Your task to perform on an android device: toggle location history Image 0: 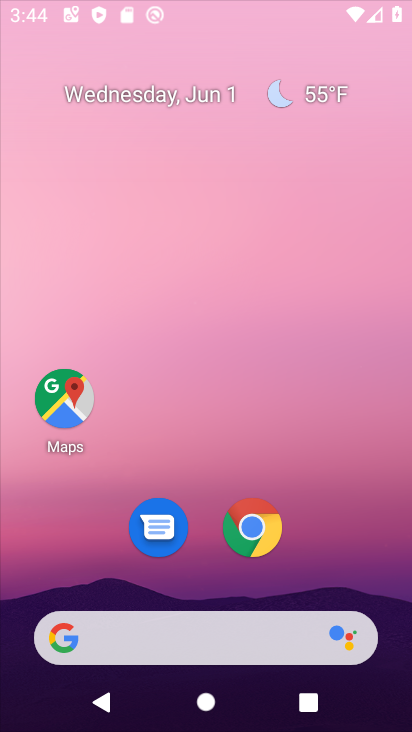
Step 0: press home button
Your task to perform on an android device: toggle location history Image 1: 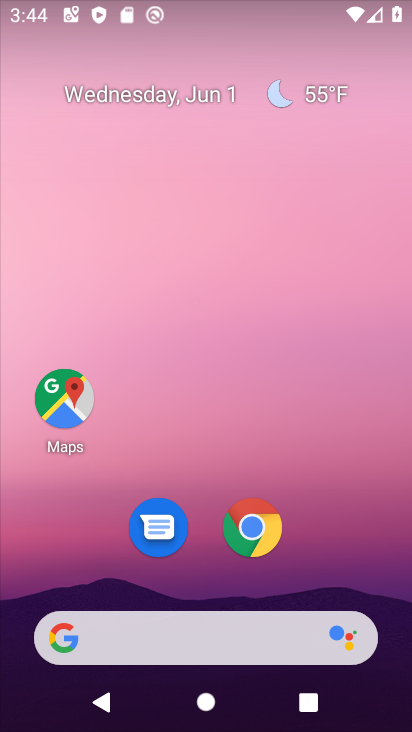
Step 1: click (338, 559)
Your task to perform on an android device: toggle location history Image 2: 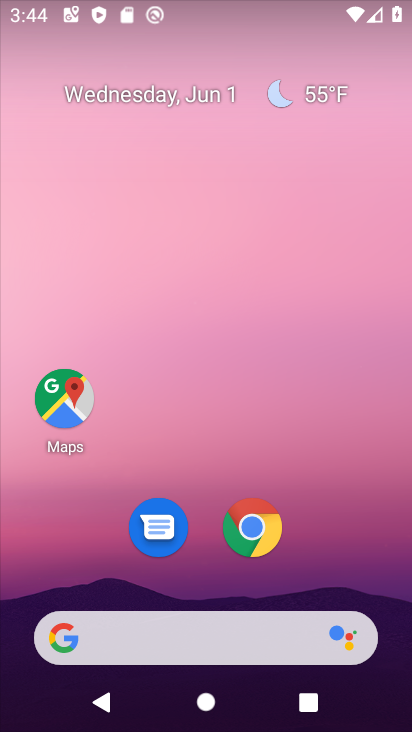
Step 2: click (57, 403)
Your task to perform on an android device: toggle location history Image 3: 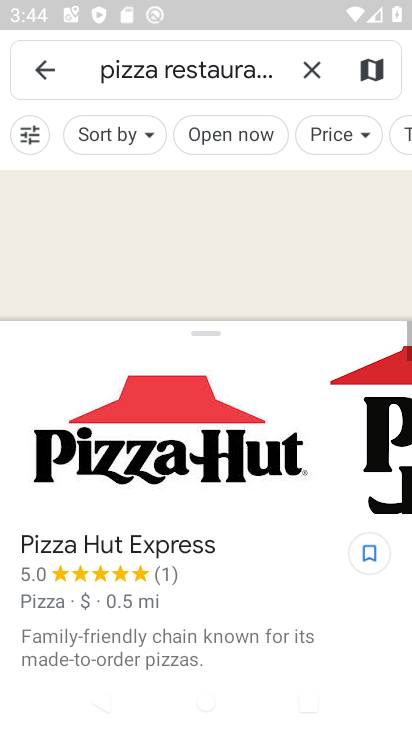
Step 3: click (54, 80)
Your task to perform on an android device: toggle location history Image 4: 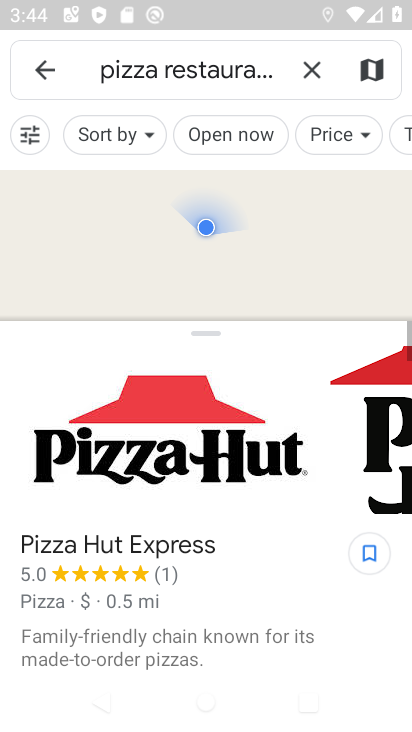
Step 4: click (54, 80)
Your task to perform on an android device: toggle location history Image 5: 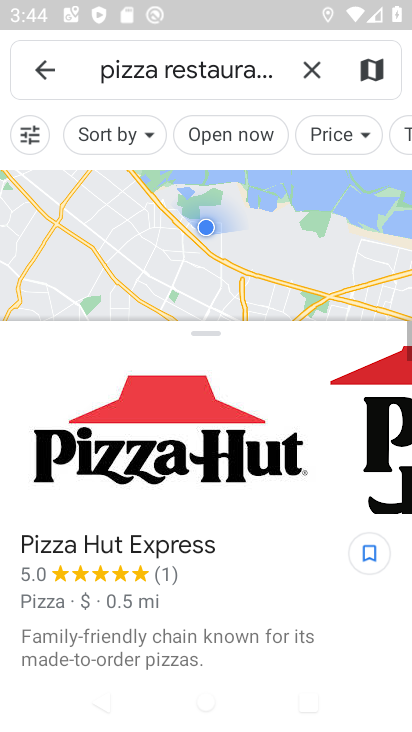
Step 5: click (45, 67)
Your task to perform on an android device: toggle location history Image 6: 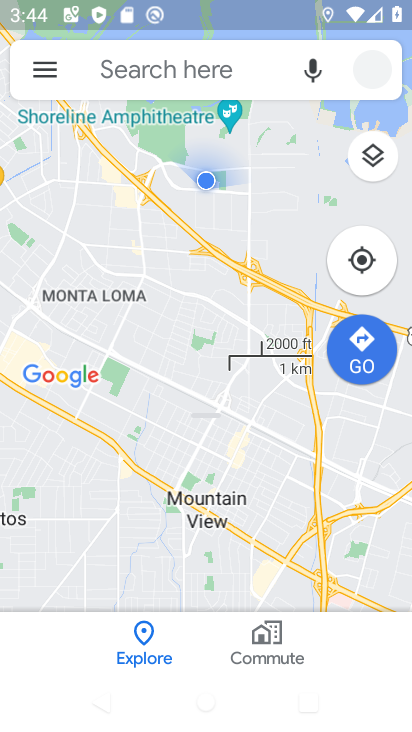
Step 6: click (45, 67)
Your task to perform on an android device: toggle location history Image 7: 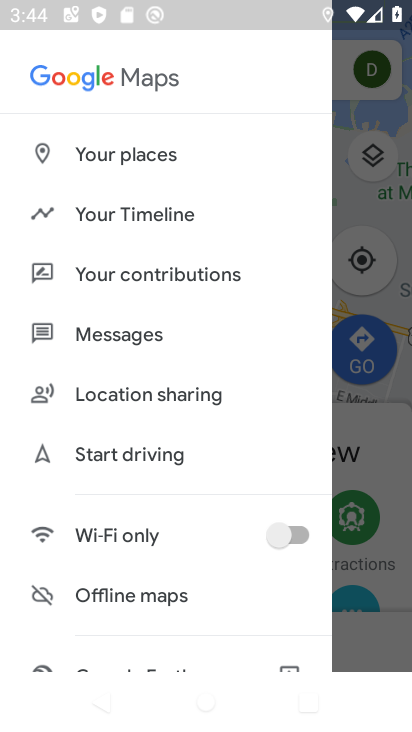
Step 7: click (135, 216)
Your task to perform on an android device: toggle location history Image 8: 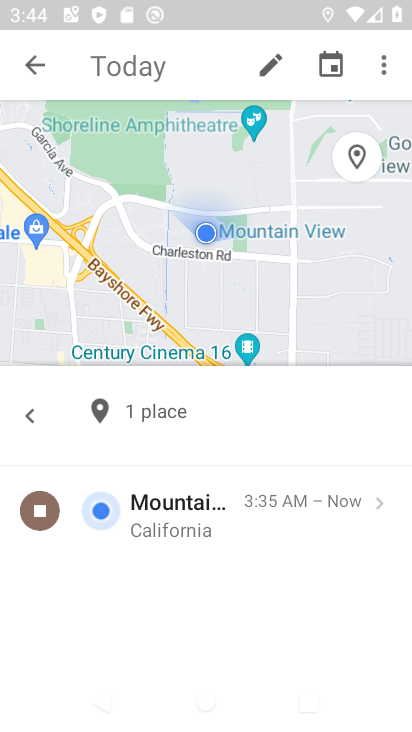
Step 8: click (375, 66)
Your task to perform on an android device: toggle location history Image 9: 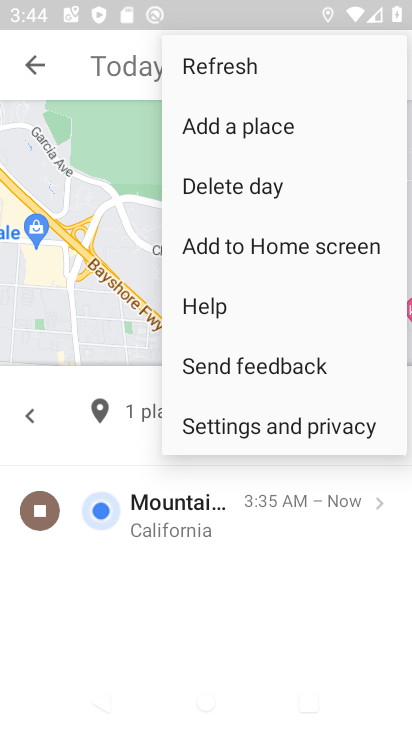
Step 9: click (264, 423)
Your task to perform on an android device: toggle location history Image 10: 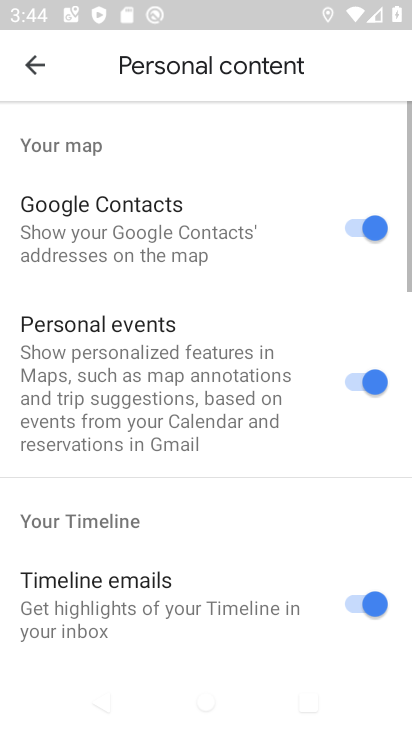
Step 10: drag from (262, 597) to (150, 219)
Your task to perform on an android device: toggle location history Image 11: 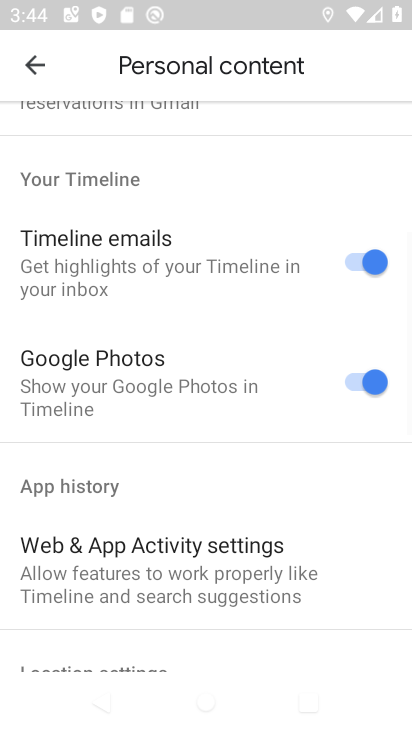
Step 11: drag from (227, 611) to (157, 329)
Your task to perform on an android device: toggle location history Image 12: 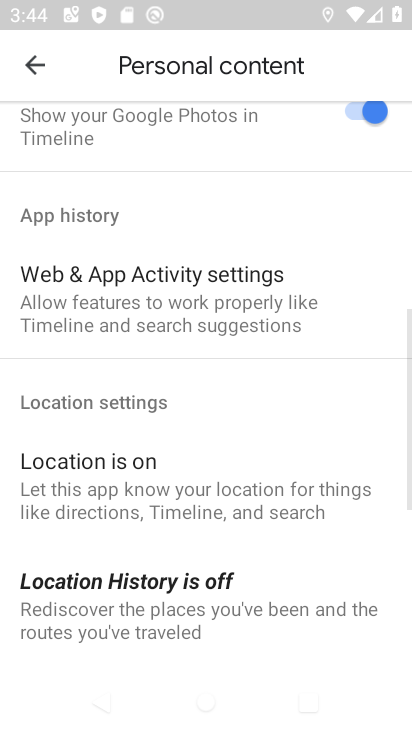
Step 12: drag from (272, 553) to (206, 356)
Your task to perform on an android device: toggle location history Image 13: 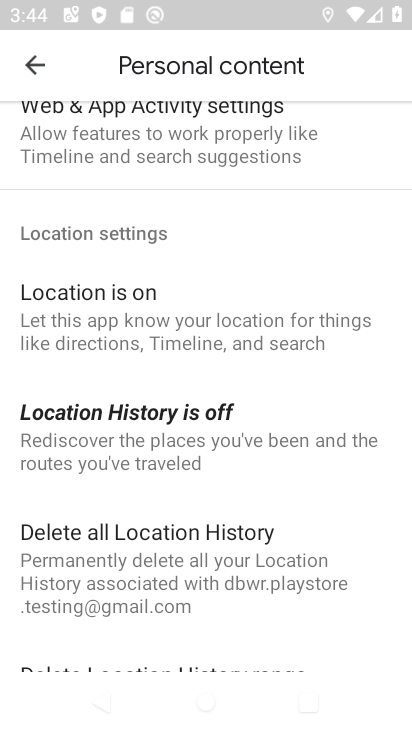
Step 13: click (109, 429)
Your task to perform on an android device: toggle location history Image 14: 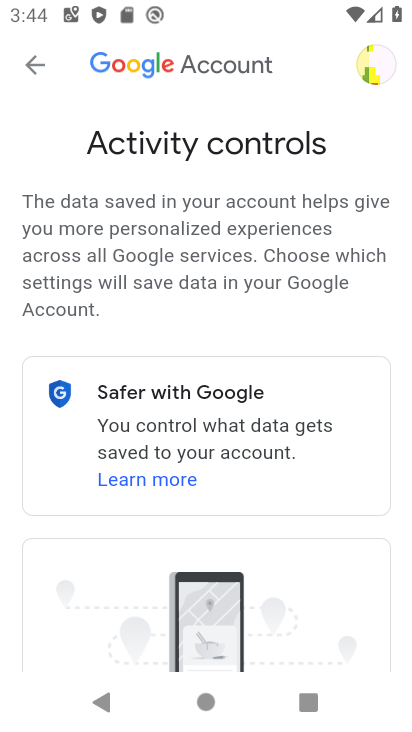
Step 14: drag from (260, 588) to (148, 7)
Your task to perform on an android device: toggle location history Image 15: 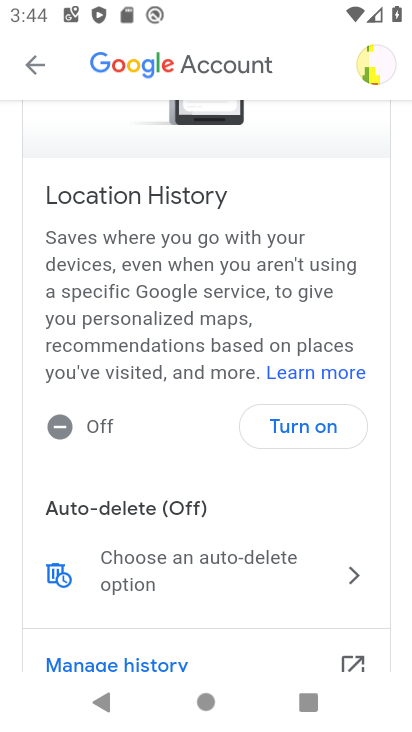
Step 15: click (295, 441)
Your task to perform on an android device: toggle location history Image 16: 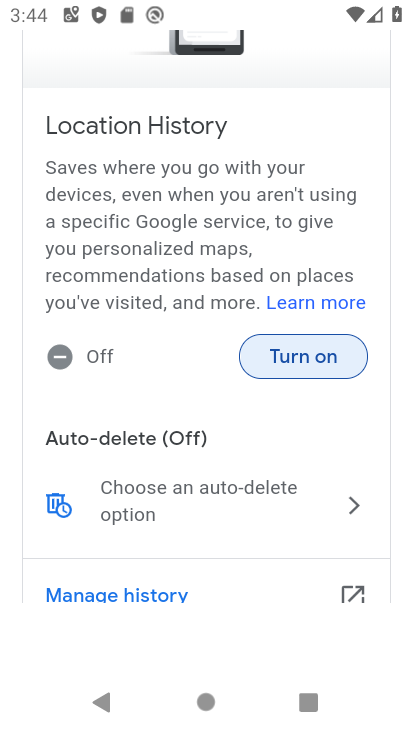
Step 16: click (295, 441)
Your task to perform on an android device: toggle location history Image 17: 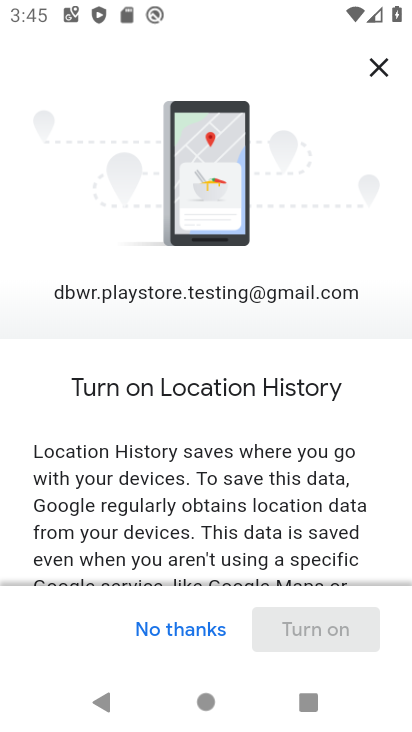
Step 17: drag from (321, 587) to (212, 103)
Your task to perform on an android device: toggle location history Image 18: 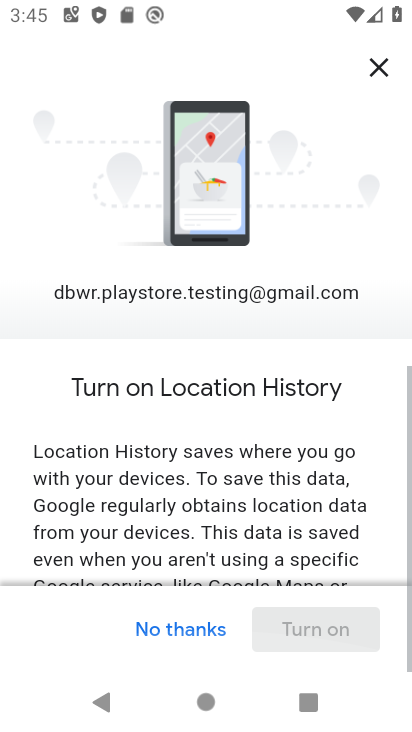
Step 18: drag from (297, 364) to (174, 23)
Your task to perform on an android device: toggle location history Image 19: 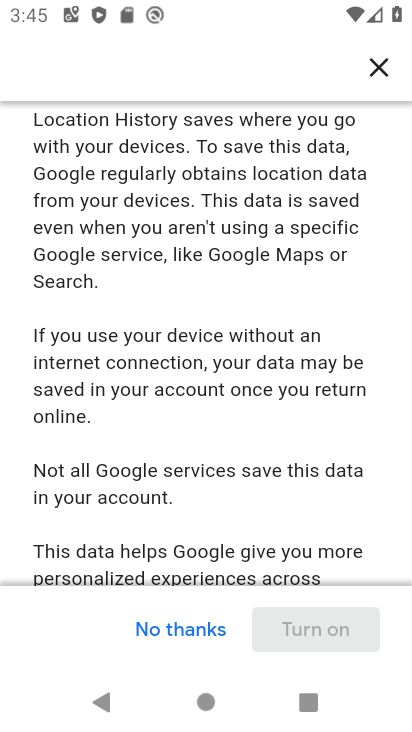
Step 19: drag from (266, 411) to (233, 26)
Your task to perform on an android device: toggle location history Image 20: 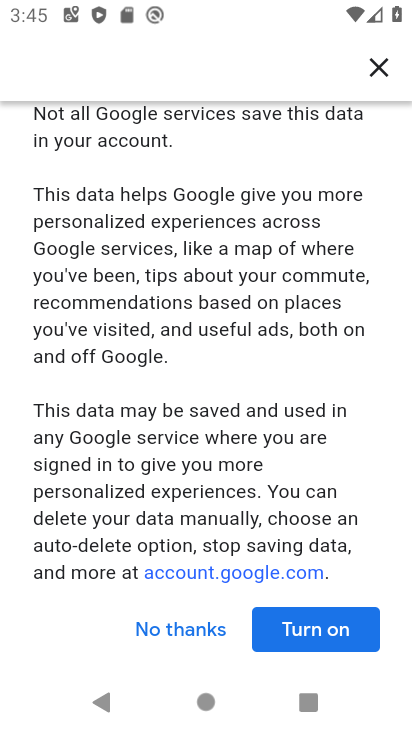
Step 20: click (297, 611)
Your task to perform on an android device: toggle location history Image 21: 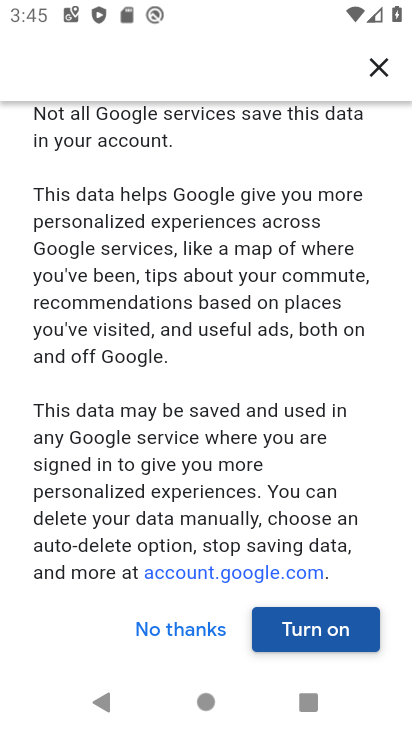
Step 21: click (305, 623)
Your task to perform on an android device: toggle location history Image 22: 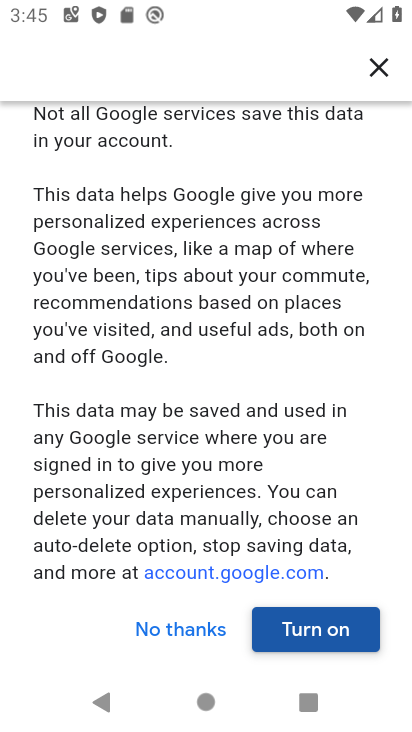
Step 22: click (305, 623)
Your task to perform on an android device: toggle location history Image 23: 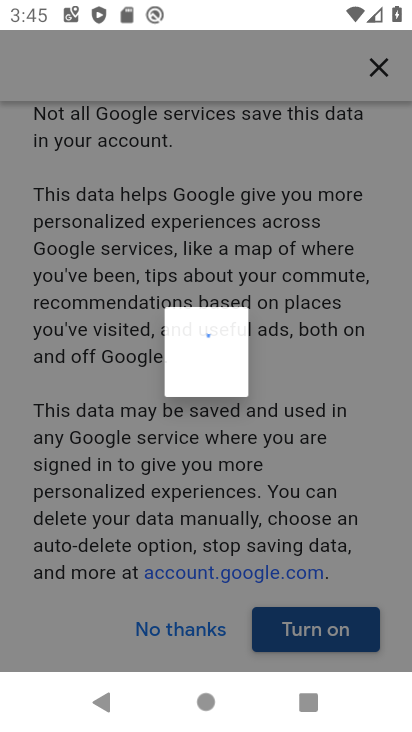
Step 23: click (305, 623)
Your task to perform on an android device: toggle location history Image 24: 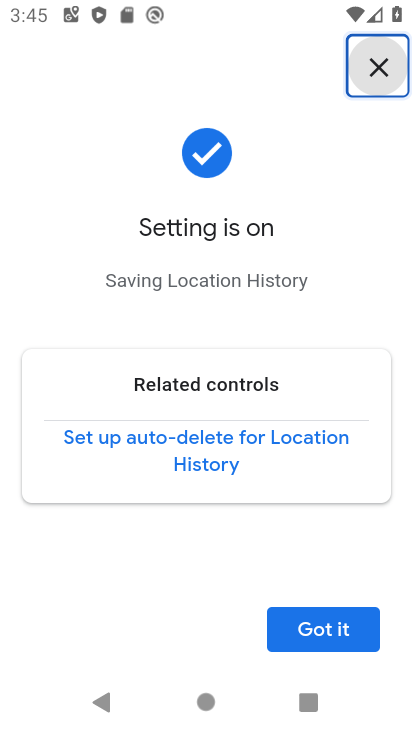
Step 24: click (305, 623)
Your task to perform on an android device: toggle location history Image 25: 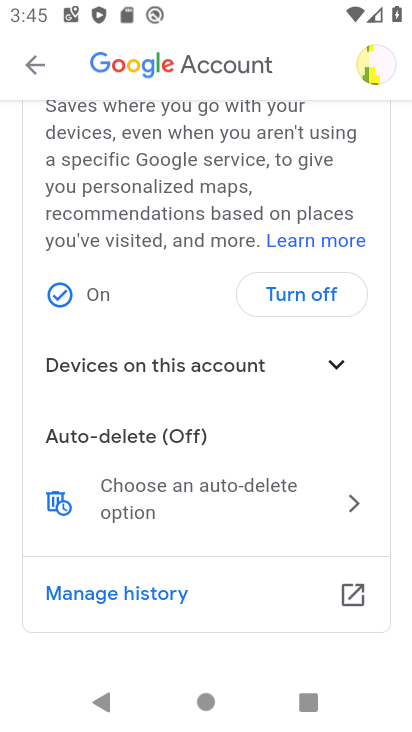
Step 25: task complete